Your task to perform on an android device: check data usage Image 0: 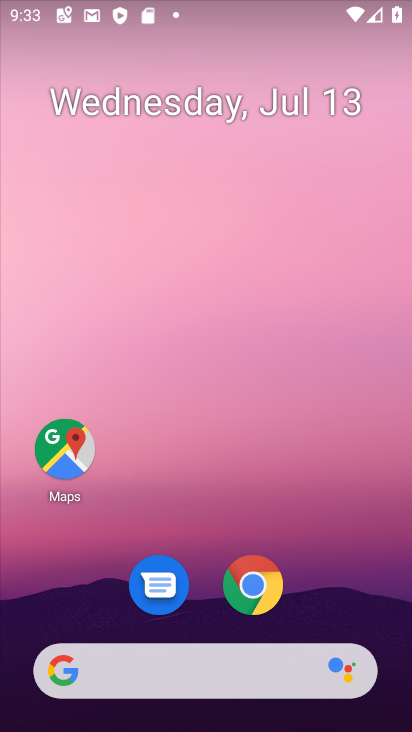
Step 0: drag from (329, 387) to (295, 34)
Your task to perform on an android device: check data usage Image 1: 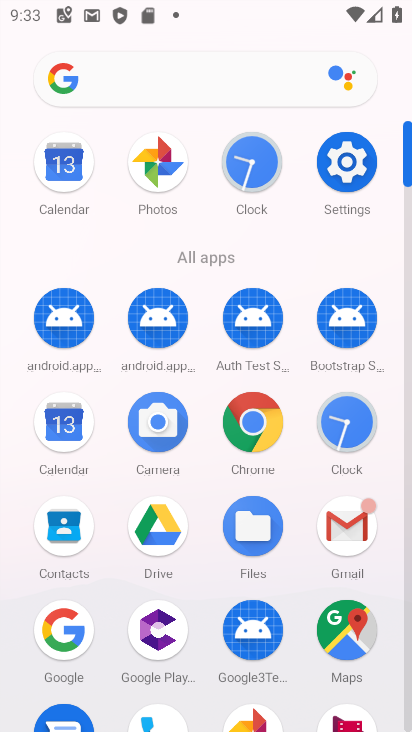
Step 1: click (348, 171)
Your task to perform on an android device: check data usage Image 2: 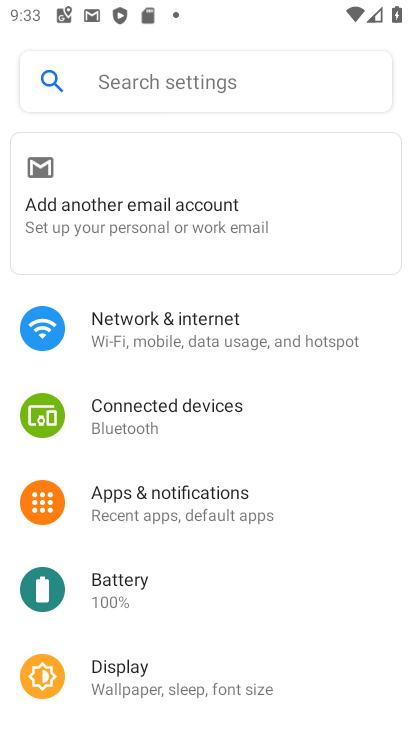
Step 2: click (255, 344)
Your task to perform on an android device: check data usage Image 3: 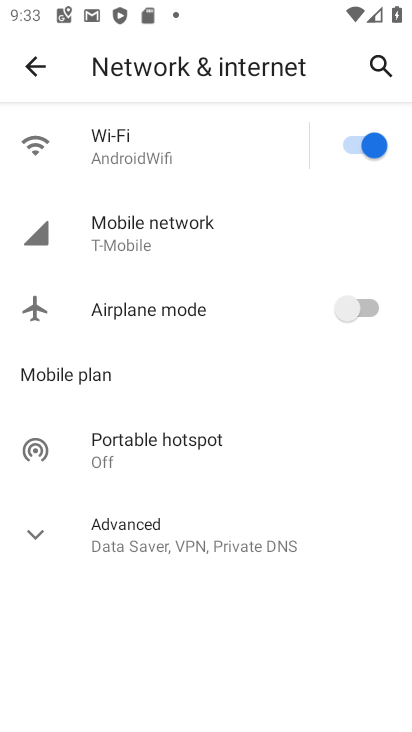
Step 3: click (200, 232)
Your task to perform on an android device: check data usage Image 4: 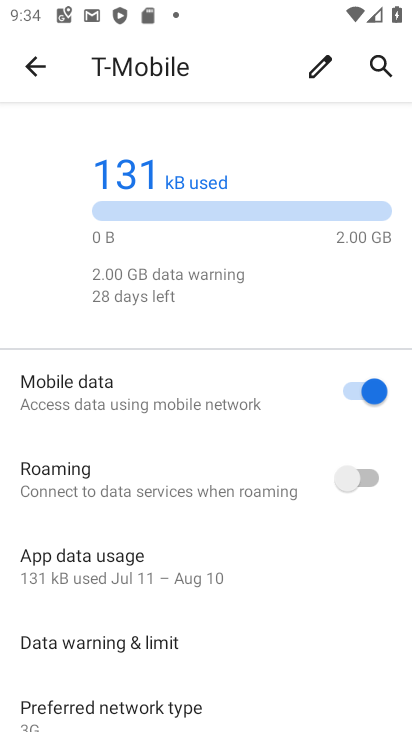
Step 4: task complete